Your task to perform on an android device: Go to Wikipedia Image 0: 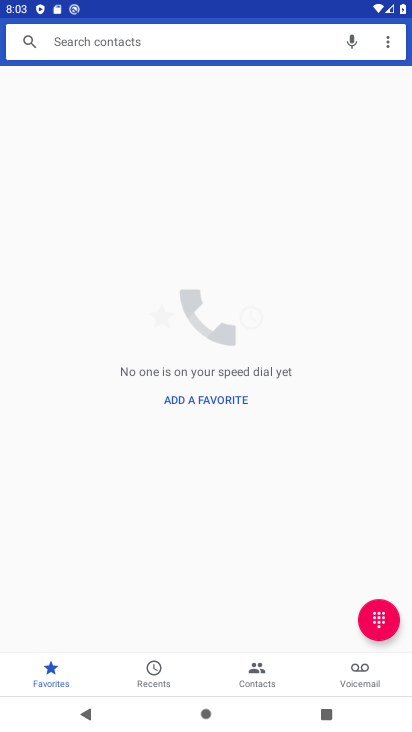
Step 0: press home button
Your task to perform on an android device: Go to Wikipedia Image 1: 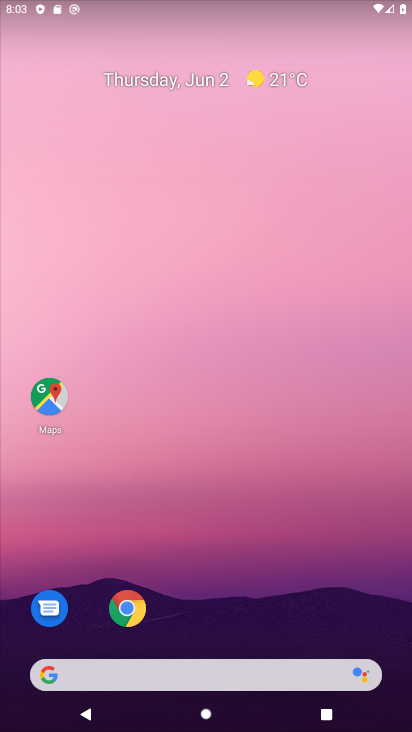
Step 1: click (133, 614)
Your task to perform on an android device: Go to Wikipedia Image 2: 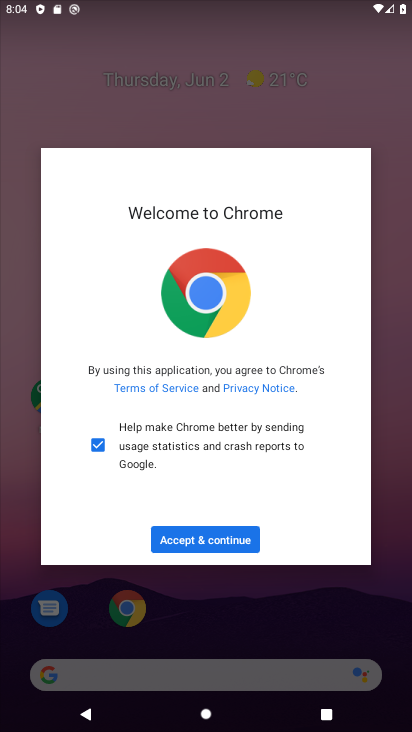
Step 2: click (211, 541)
Your task to perform on an android device: Go to Wikipedia Image 3: 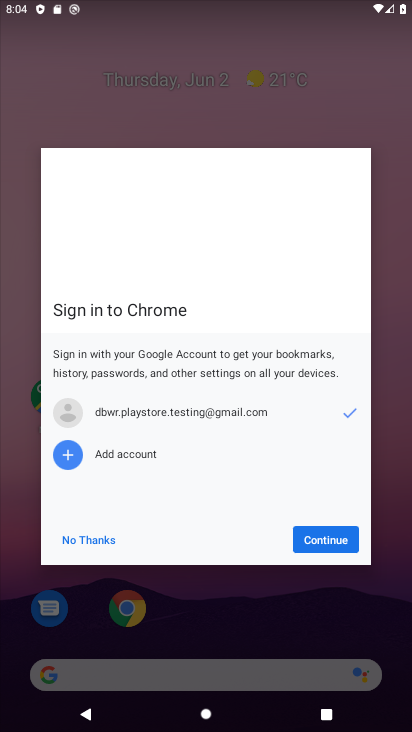
Step 3: click (313, 536)
Your task to perform on an android device: Go to Wikipedia Image 4: 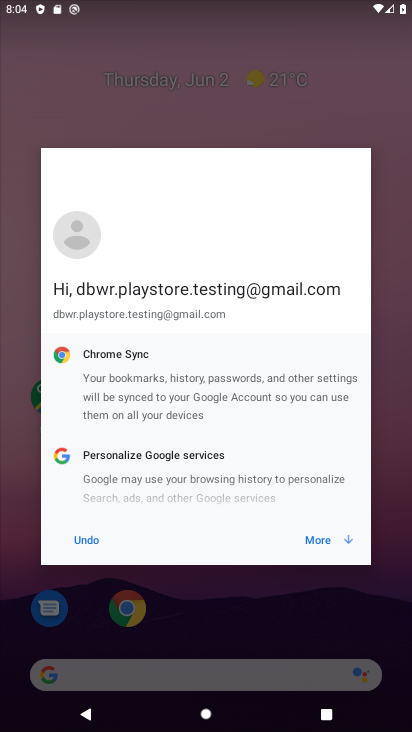
Step 4: click (315, 538)
Your task to perform on an android device: Go to Wikipedia Image 5: 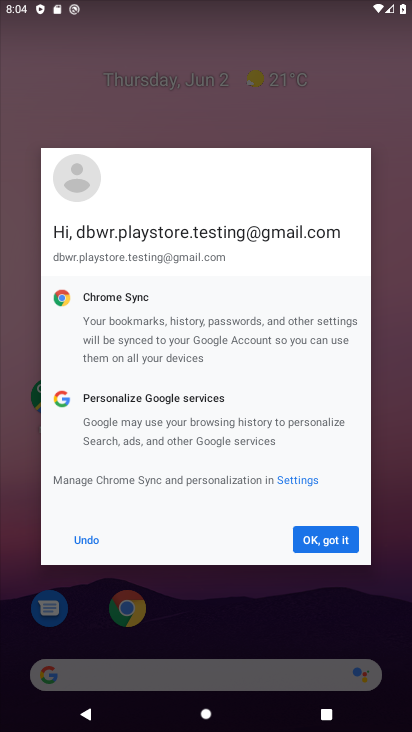
Step 5: click (315, 538)
Your task to perform on an android device: Go to Wikipedia Image 6: 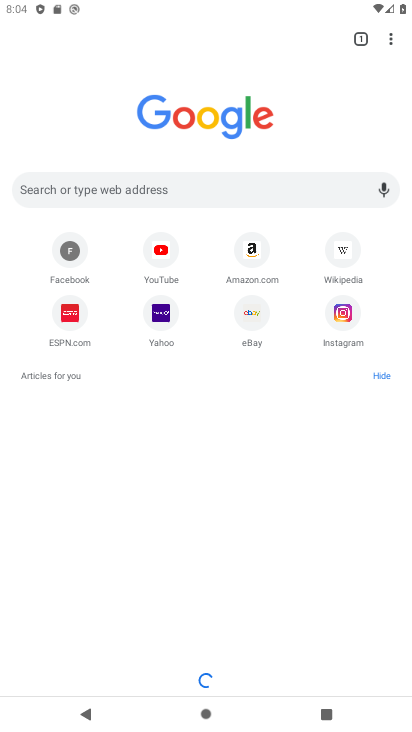
Step 6: click (346, 251)
Your task to perform on an android device: Go to Wikipedia Image 7: 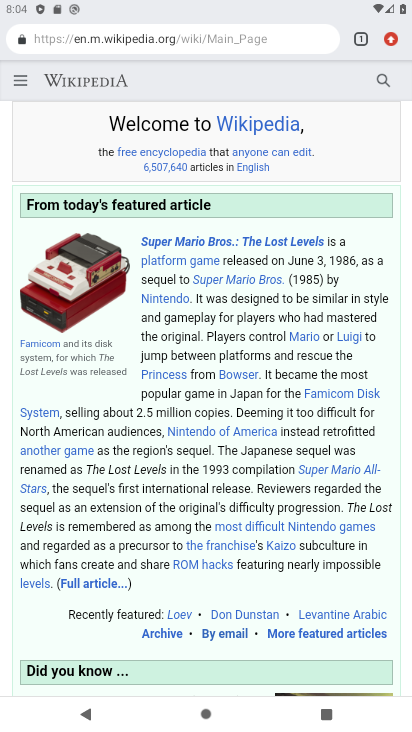
Step 7: task complete